Your task to perform on an android device: turn on wifi Image 0: 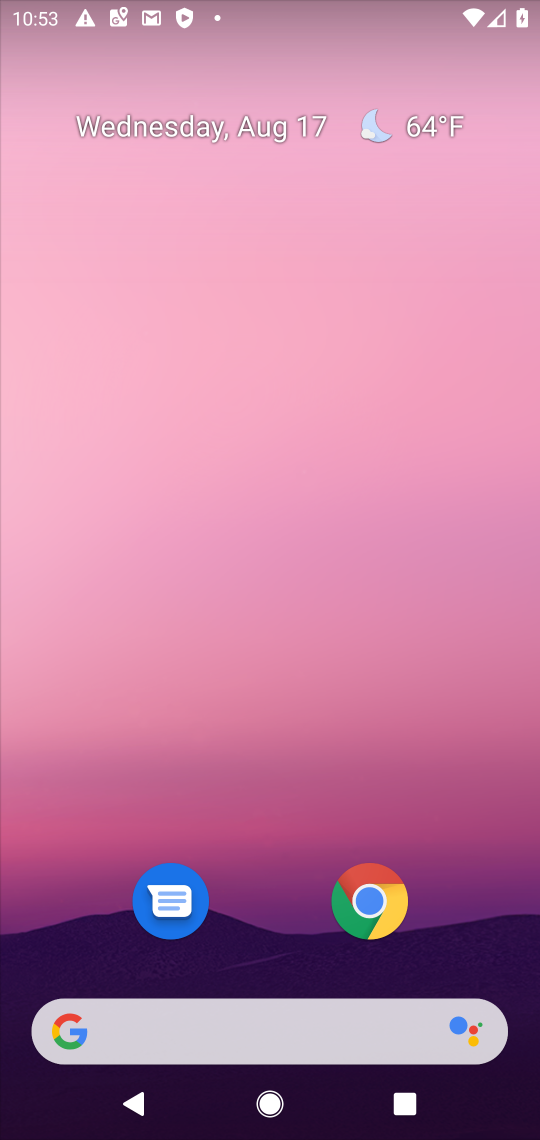
Step 0: press home button
Your task to perform on an android device: turn on wifi Image 1: 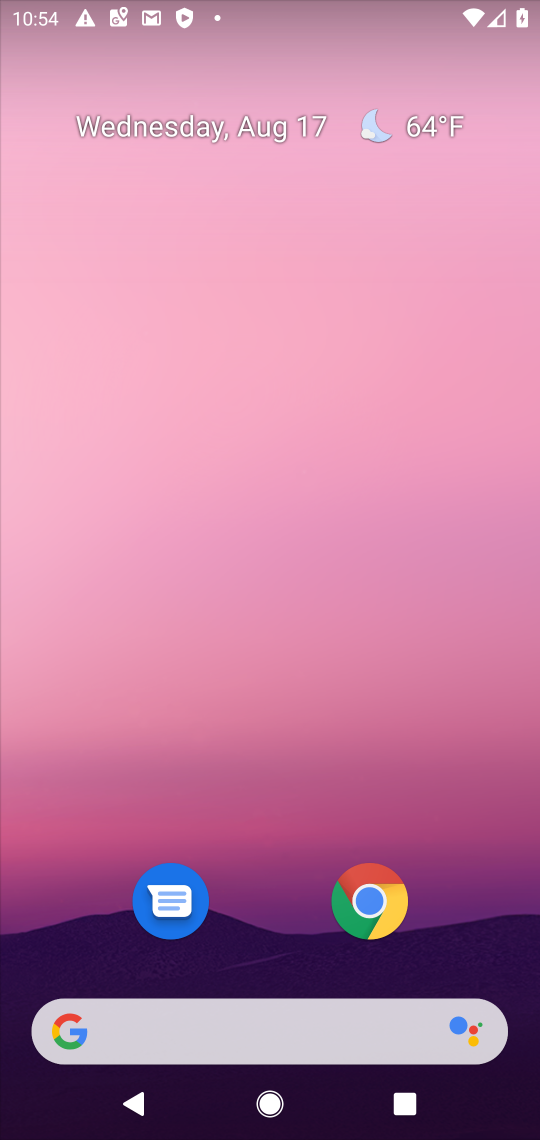
Step 1: press home button
Your task to perform on an android device: turn on wifi Image 2: 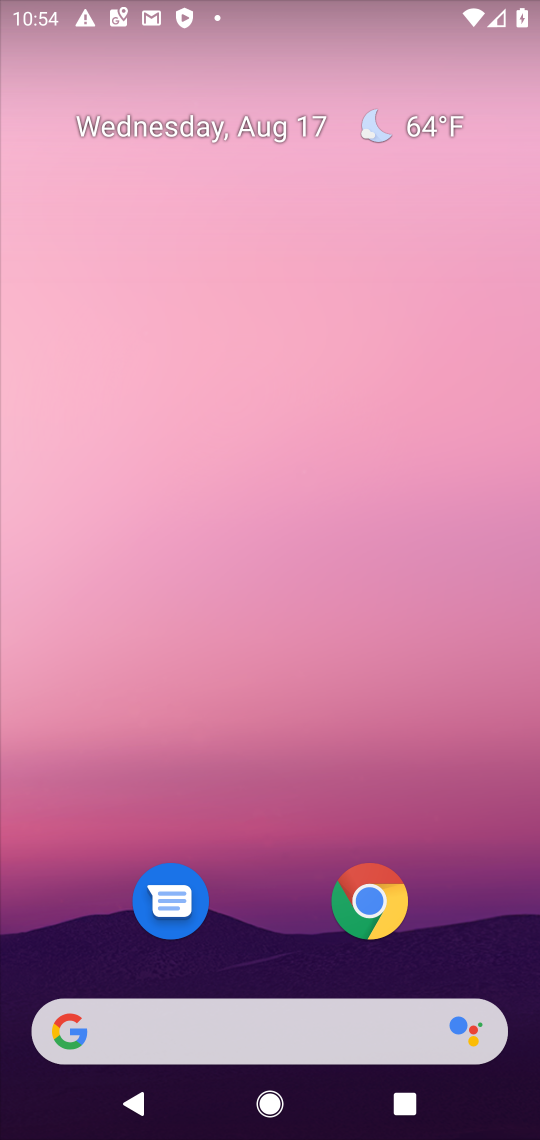
Step 2: drag from (302, 947) to (293, 191)
Your task to perform on an android device: turn on wifi Image 3: 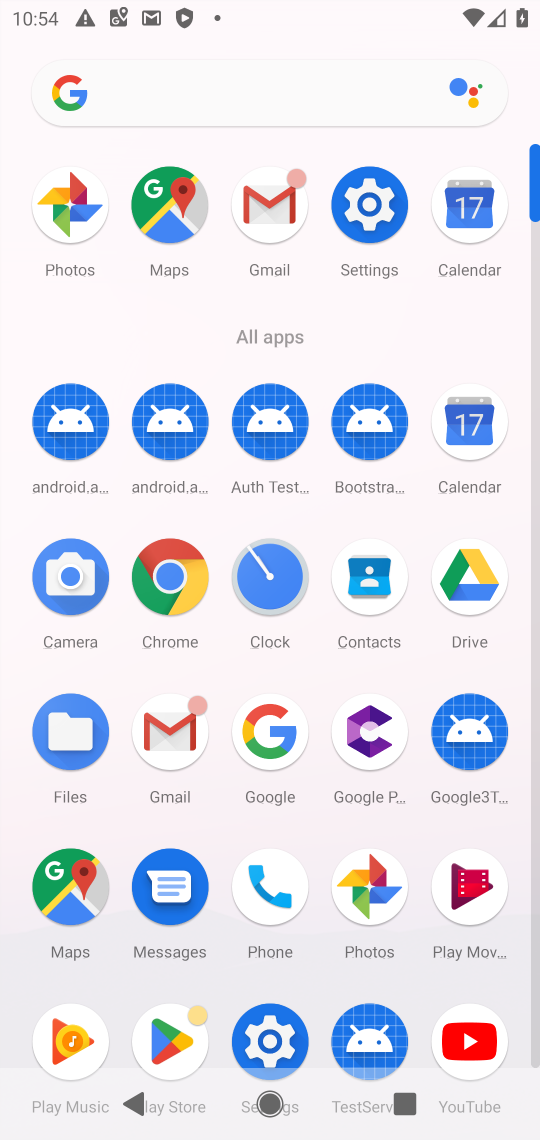
Step 3: click (365, 200)
Your task to perform on an android device: turn on wifi Image 4: 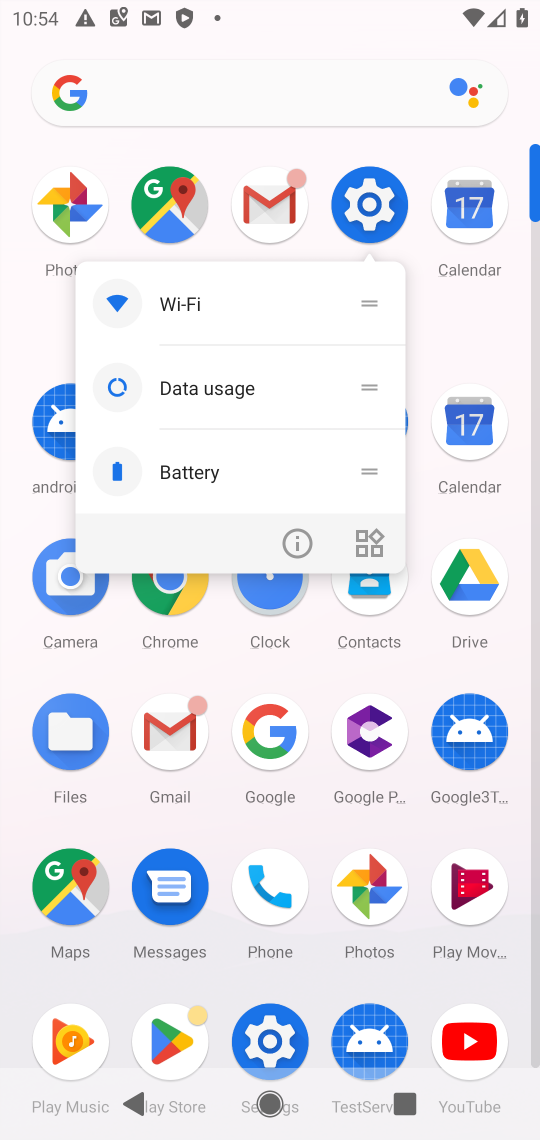
Step 4: click (386, 204)
Your task to perform on an android device: turn on wifi Image 5: 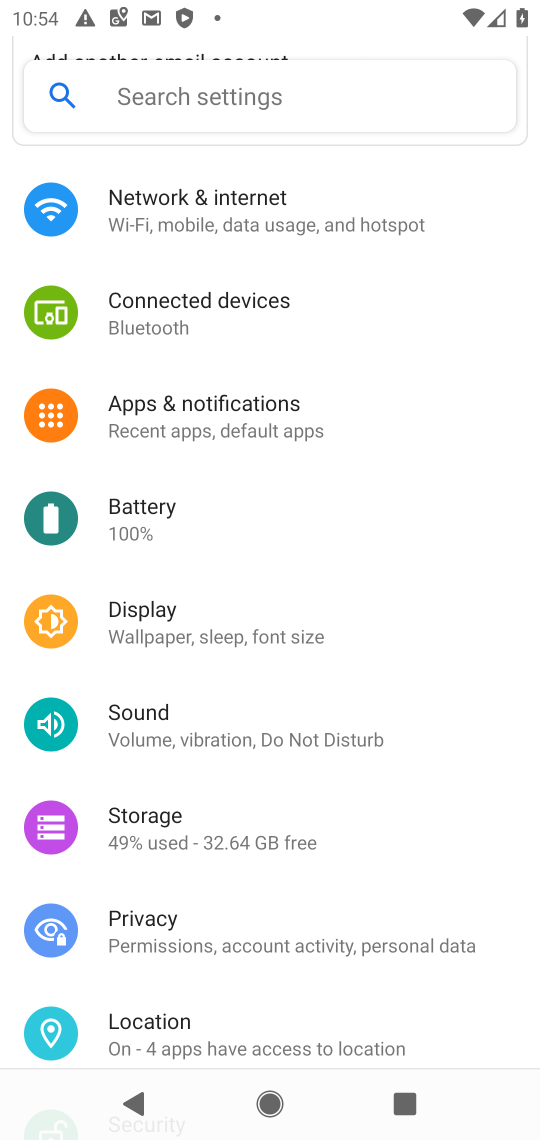
Step 5: click (178, 209)
Your task to perform on an android device: turn on wifi Image 6: 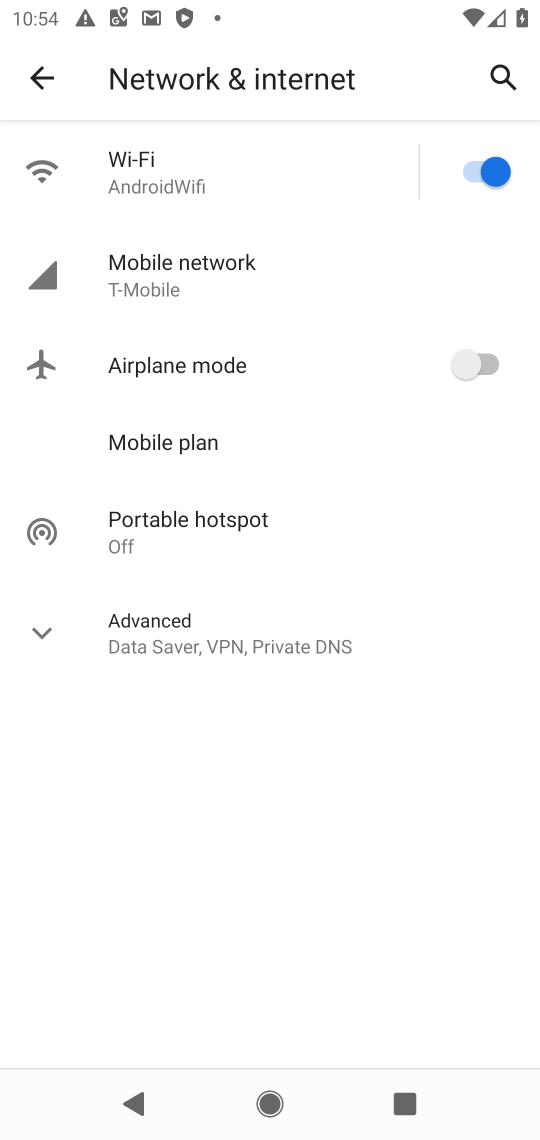
Step 6: task complete